Your task to perform on an android device: Search for vegetarian restaurants on Maps Image 0: 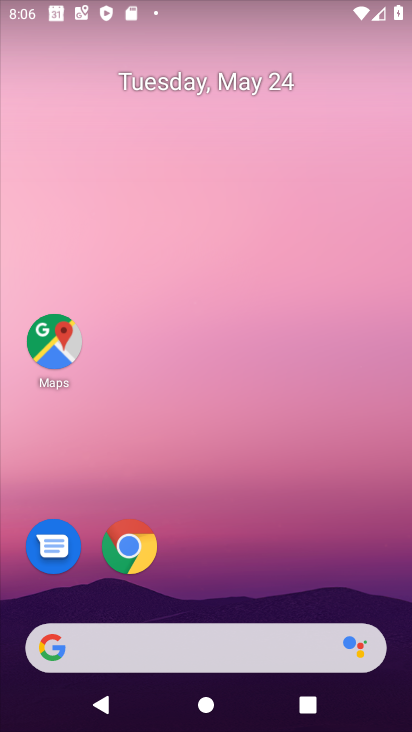
Step 0: click (56, 340)
Your task to perform on an android device: Search for vegetarian restaurants on Maps Image 1: 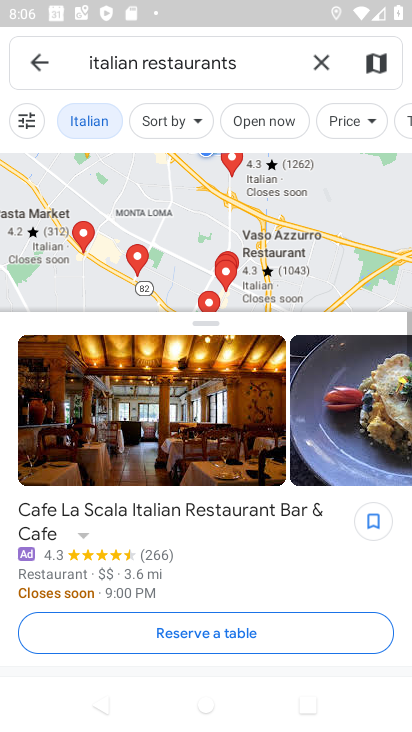
Step 1: click (326, 63)
Your task to perform on an android device: Search for vegetarian restaurants on Maps Image 2: 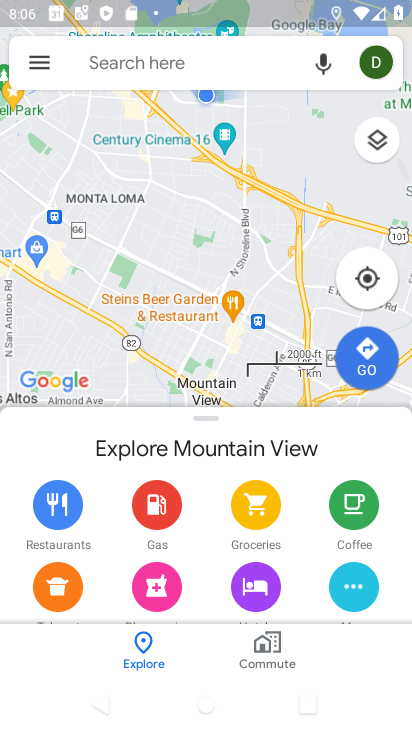
Step 2: click (210, 64)
Your task to perform on an android device: Search for vegetarian restaurants on Maps Image 3: 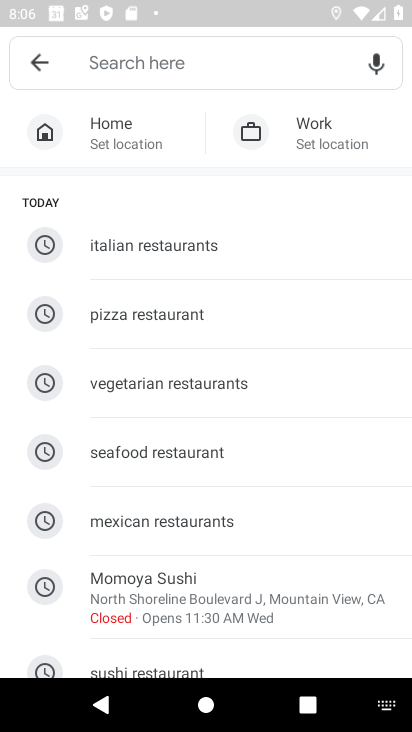
Step 3: click (163, 387)
Your task to perform on an android device: Search for vegetarian restaurants on Maps Image 4: 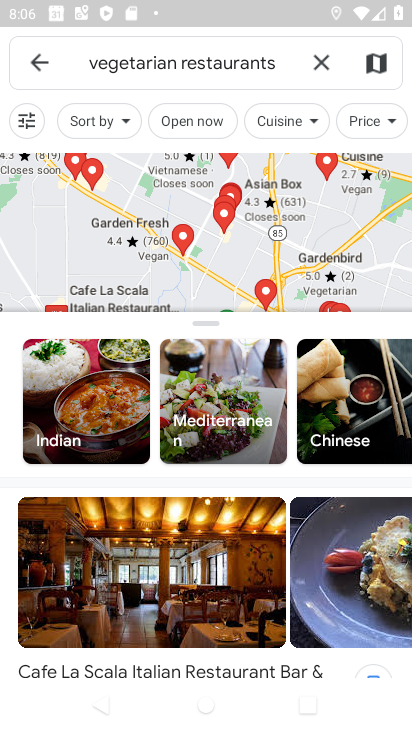
Step 4: task complete